Your task to perform on an android device: empty trash in the gmail app Image 0: 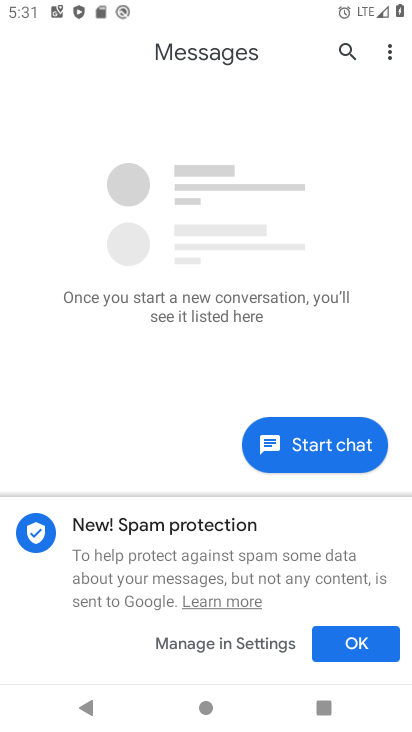
Step 0: press home button
Your task to perform on an android device: empty trash in the gmail app Image 1: 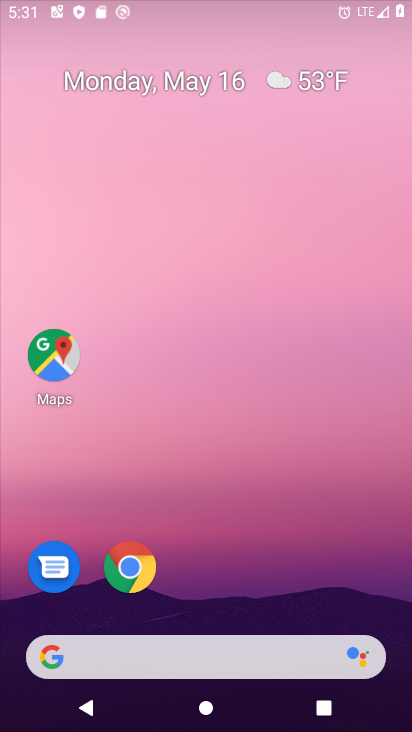
Step 1: drag from (287, 615) to (270, 7)
Your task to perform on an android device: empty trash in the gmail app Image 2: 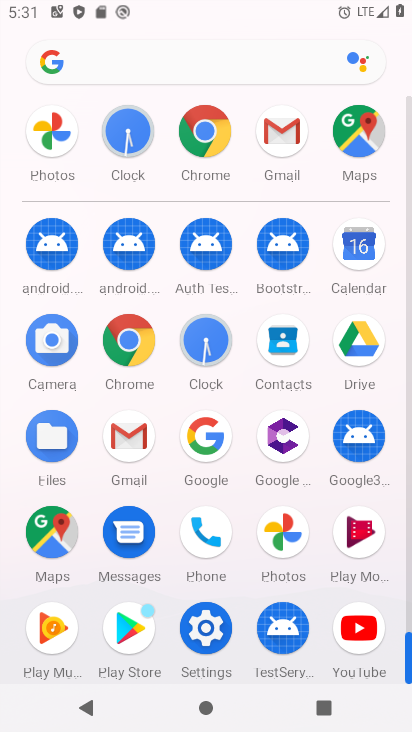
Step 2: click (138, 424)
Your task to perform on an android device: empty trash in the gmail app Image 3: 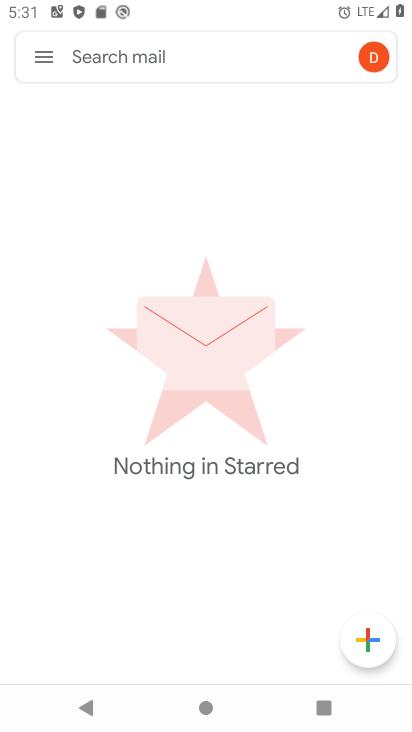
Step 3: click (47, 52)
Your task to perform on an android device: empty trash in the gmail app Image 4: 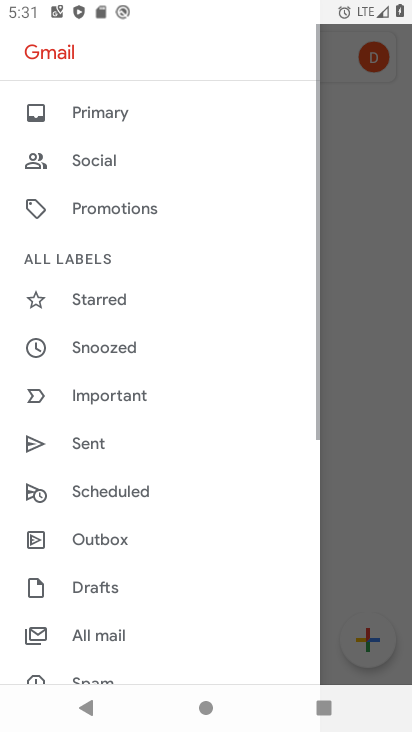
Step 4: drag from (156, 565) to (194, 45)
Your task to perform on an android device: empty trash in the gmail app Image 5: 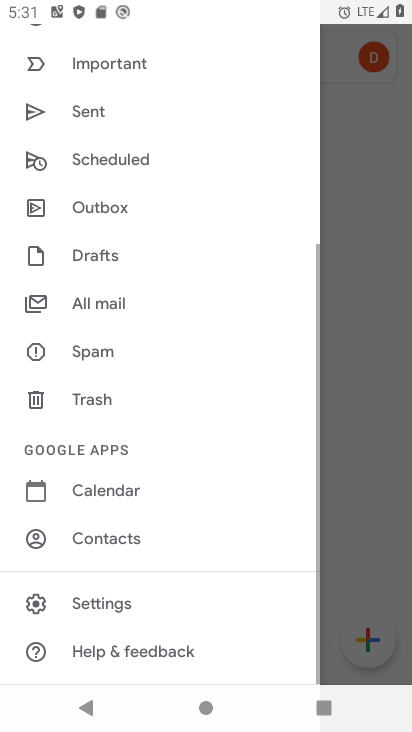
Step 5: click (115, 395)
Your task to perform on an android device: empty trash in the gmail app Image 6: 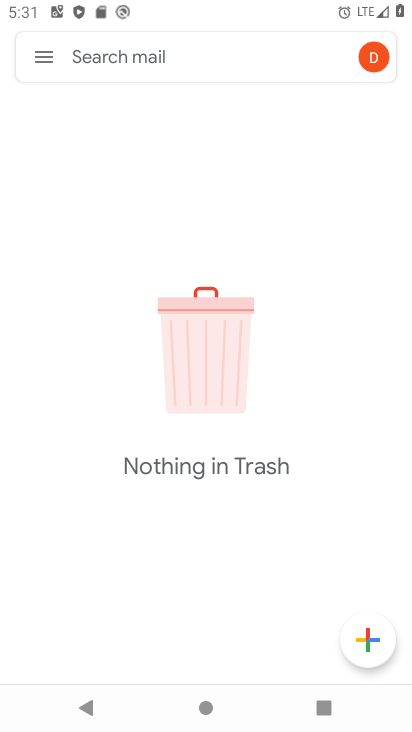
Step 6: task complete